Your task to perform on an android device: View the shopping cart on bestbuy. Search for "dell xps" on bestbuy, select the first entry, add it to the cart, then select checkout. Image 0: 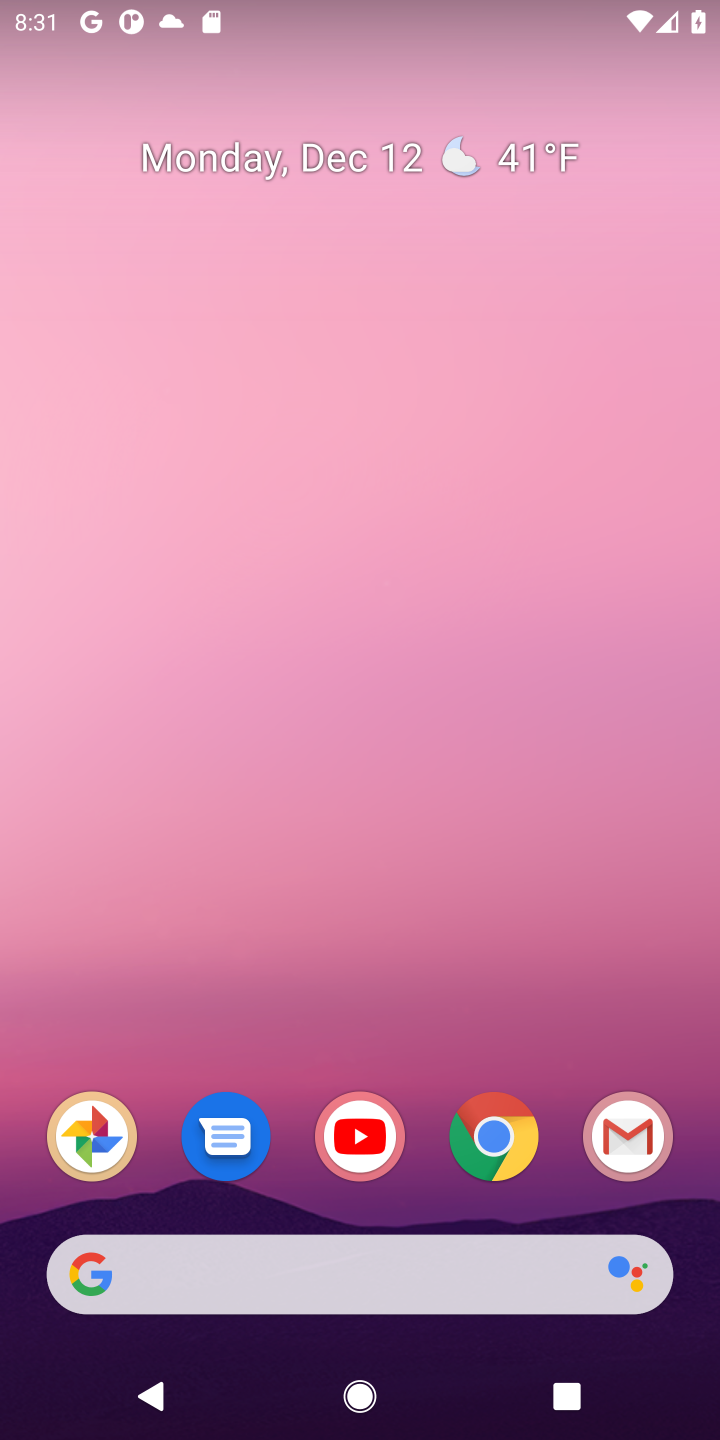
Step 0: click (489, 1142)
Your task to perform on an android device: View the shopping cart on bestbuy. Search for "dell xps" on bestbuy, select the first entry, add it to the cart, then select checkout. Image 1: 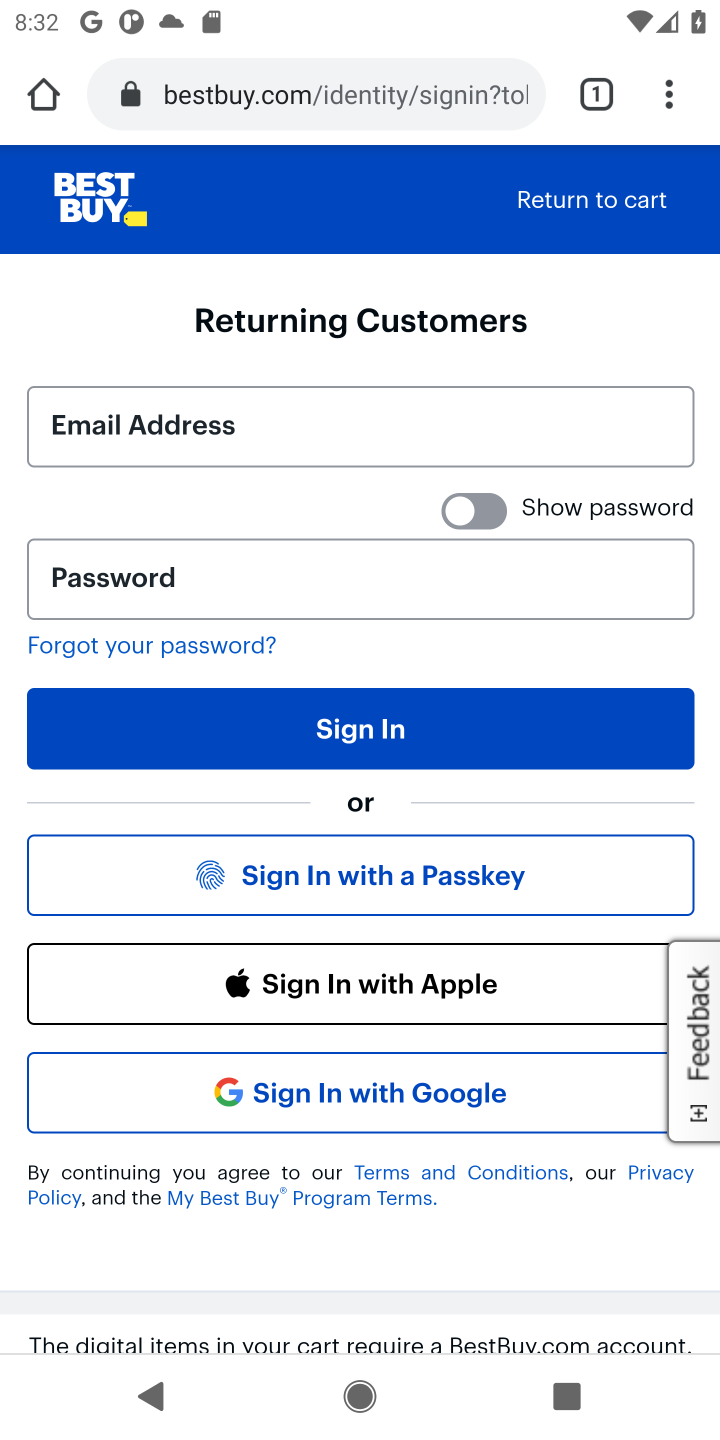
Step 1: press back button
Your task to perform on an android device: View the shopping cart on bestbuy. Search for "dell xps" on bestbuy, select the first entry, add it to the cart, then select checkout. Image 2: 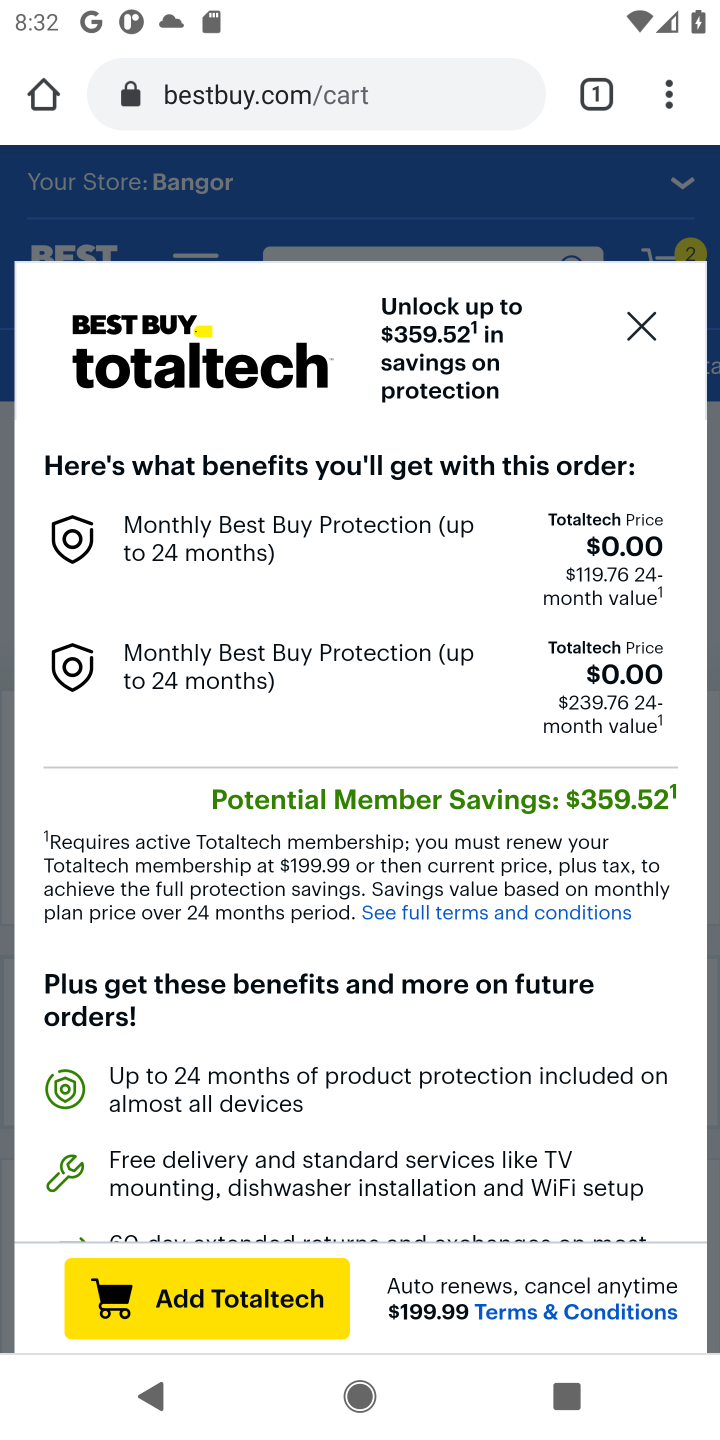
Step 2: click (641, 326)
Your task to perform on an android device: View the shopping cart on bestbuy. Search for "dell xps" on bestbuy, select the first entry, add it to the cart, then select checkout. Image 3: 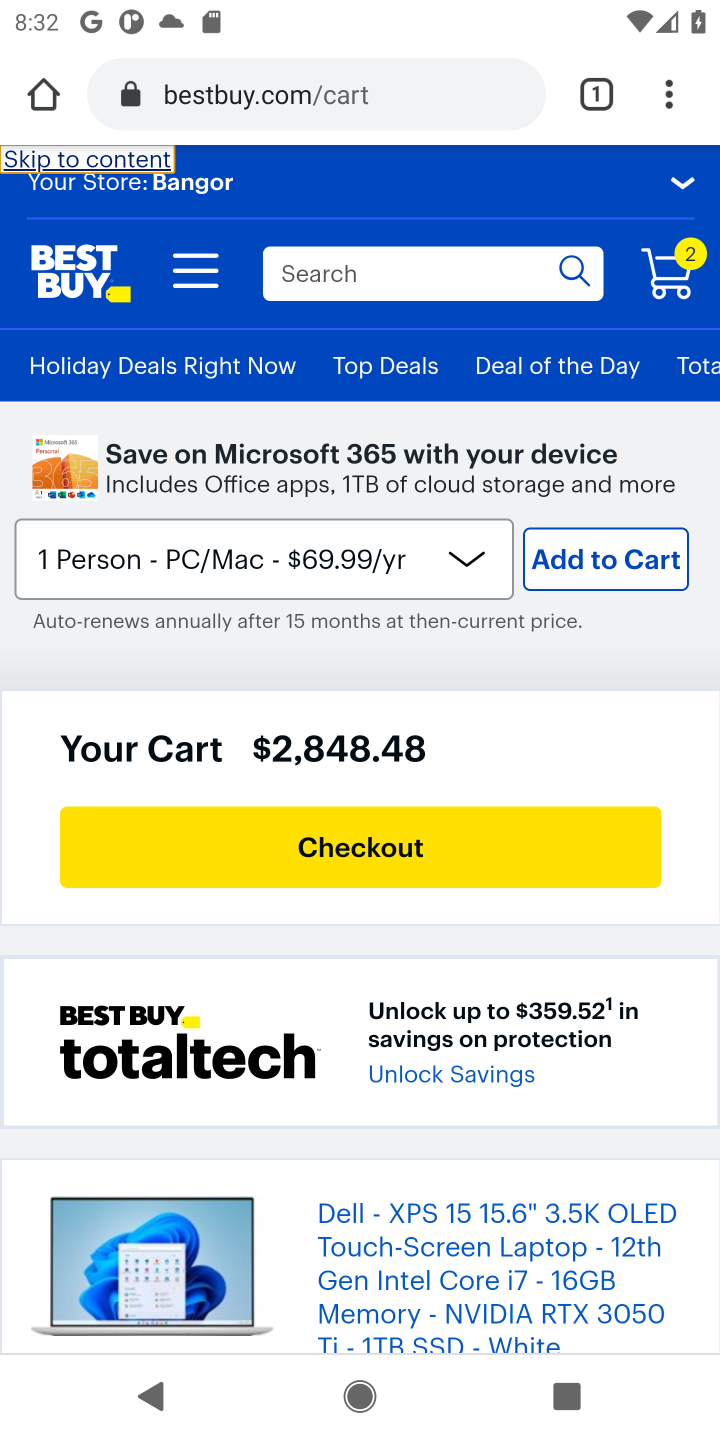
Step 3: click (672, 274)
Your task to perform on an android device: View the shopping cart on bestbuy. Search for "dell xps" on bestbuy, select the first entry, add it to the cart, then select checkout. Image 4: 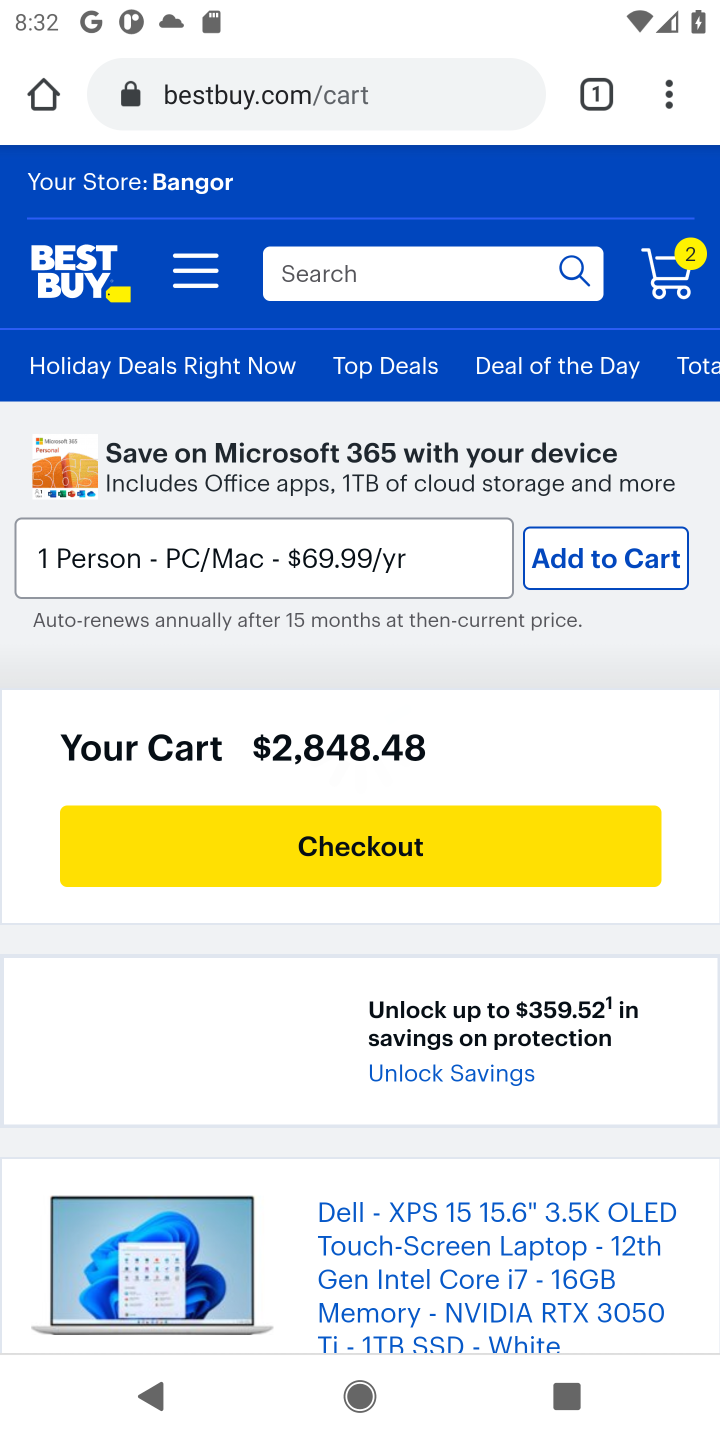
Step 4: drag from (422, 1014) to (422, 581)
Your task to perform on an android device: View the shopping cart on bestbuy. Search for "dell xps" on bestbuy, select the first entry, add it to the cart, then select checkout. Image 5: 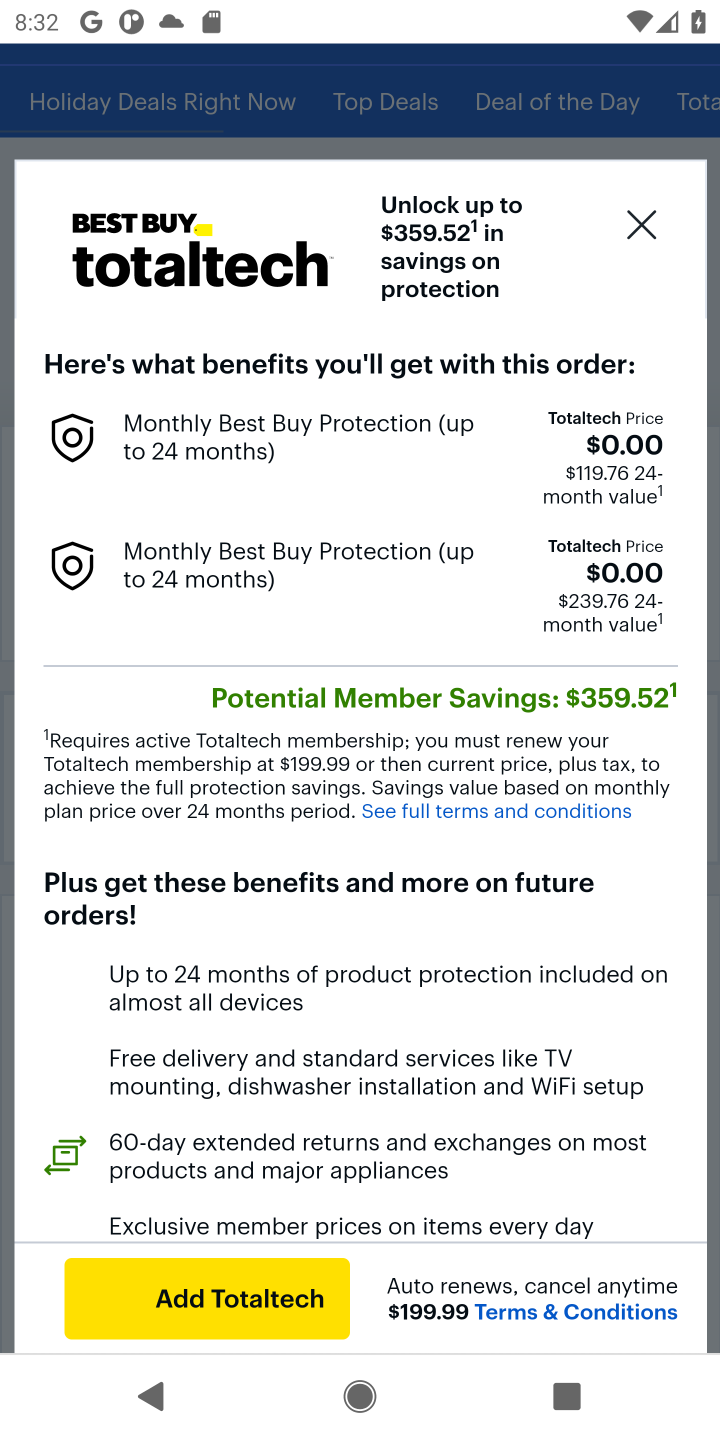
Step 5: drag from (557, 1018) to (534, 656)
Your task to perform on an android device: View the shopping cart on bestbuy. Search for "dell xps" on bestbuy, select the first entry, add it to the cart, then select checkout. Image 6: 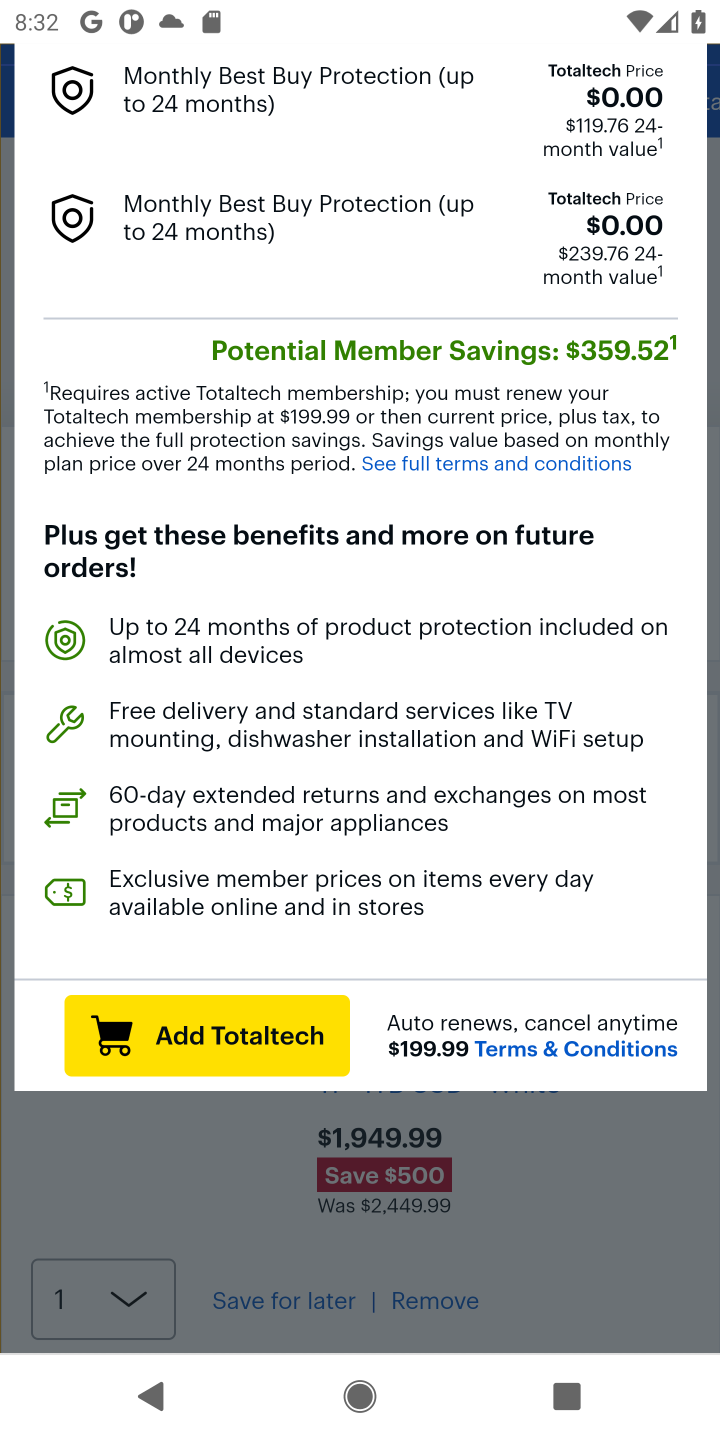
Step 6: drag from (561, 484) to (574, 955)
Your task to perform on an android device: View the shopping cart on bestbuy. Search for "dell xps" on bestbuy, select the first entry, add it to the cart, then select checkout. Image 7: 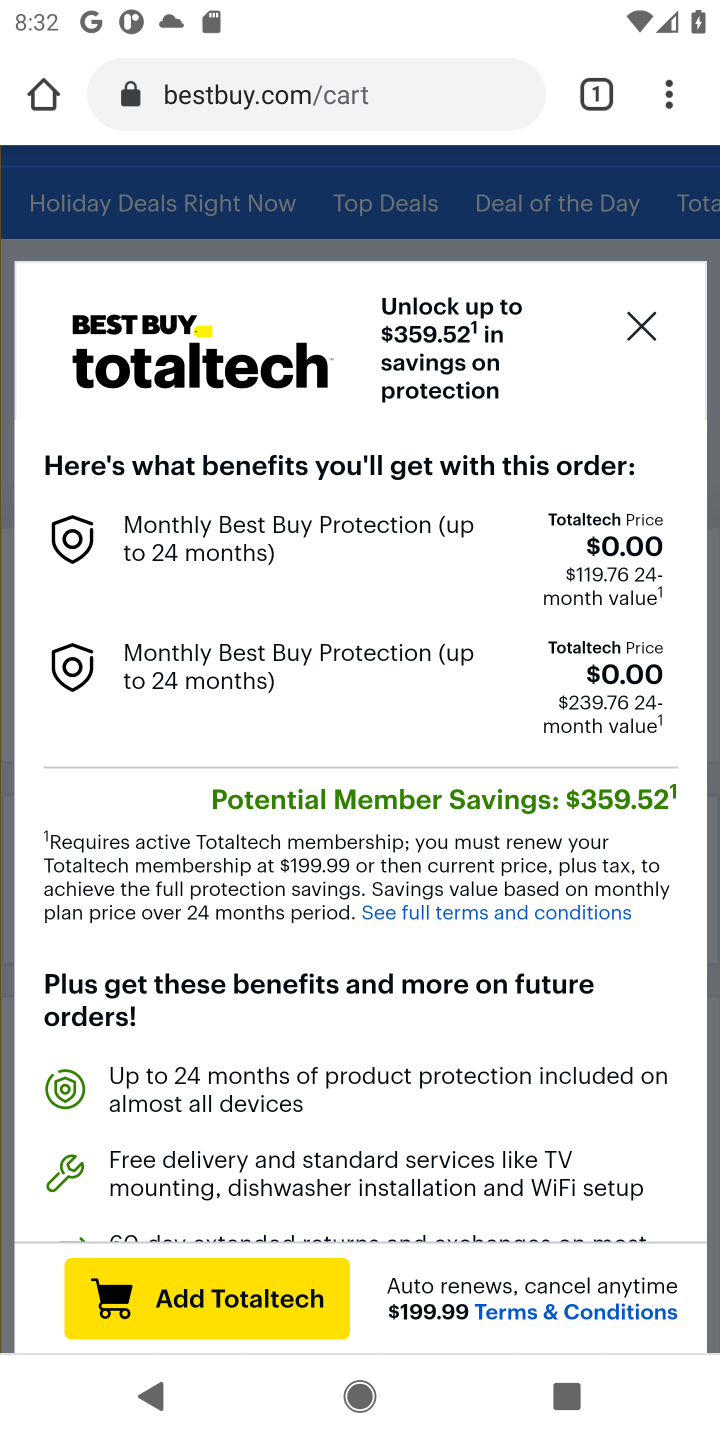
Step 7: click (642, 339)
Your task to perform on an android device: View the shopping cart on bestbuy. Search for "dell xps" on bestbuy, select the first entry, add it to the cart, then select checkout. Image 8: 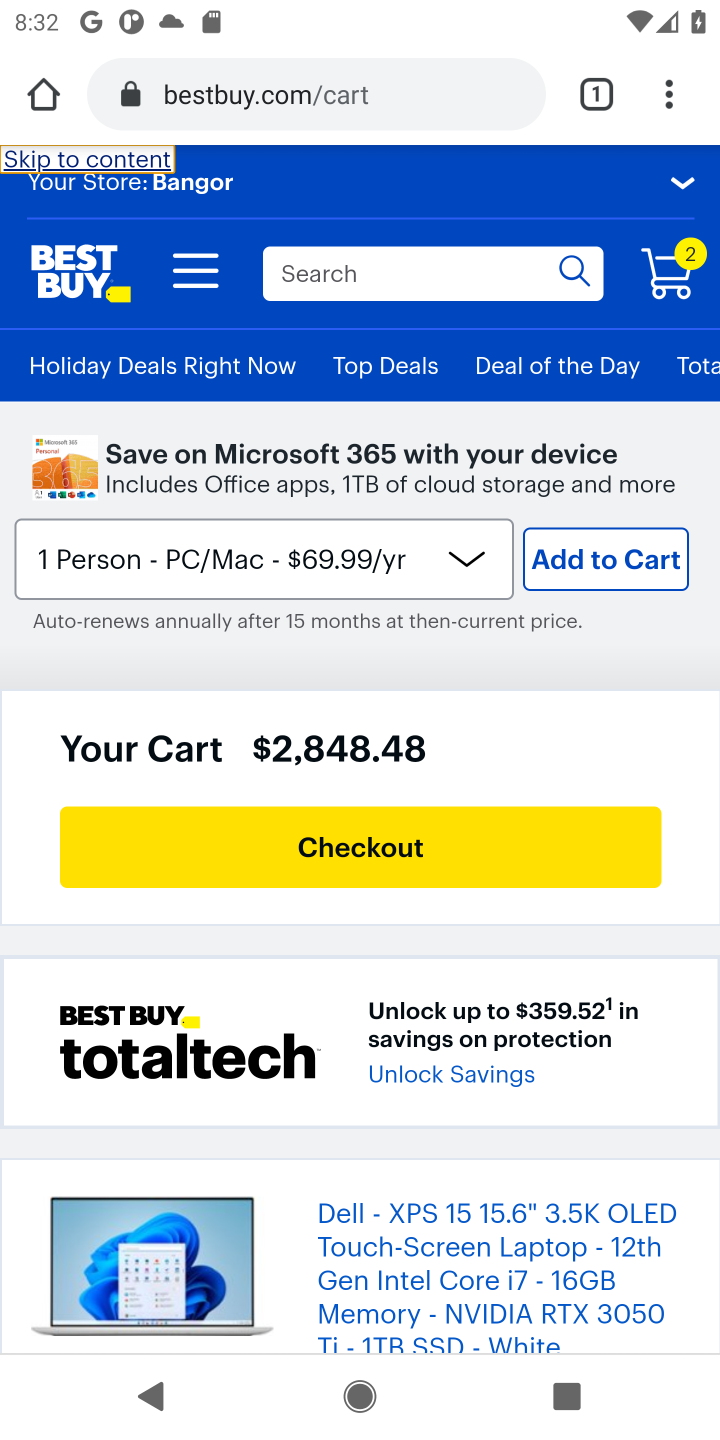
Step 8: click (372, 262)
Your task to perform on an android device: View the shopping cart on bestbuy. Search for "dell xps" on bestbuy, select the first entry, add it to the cart, then select checkout. Image 9: 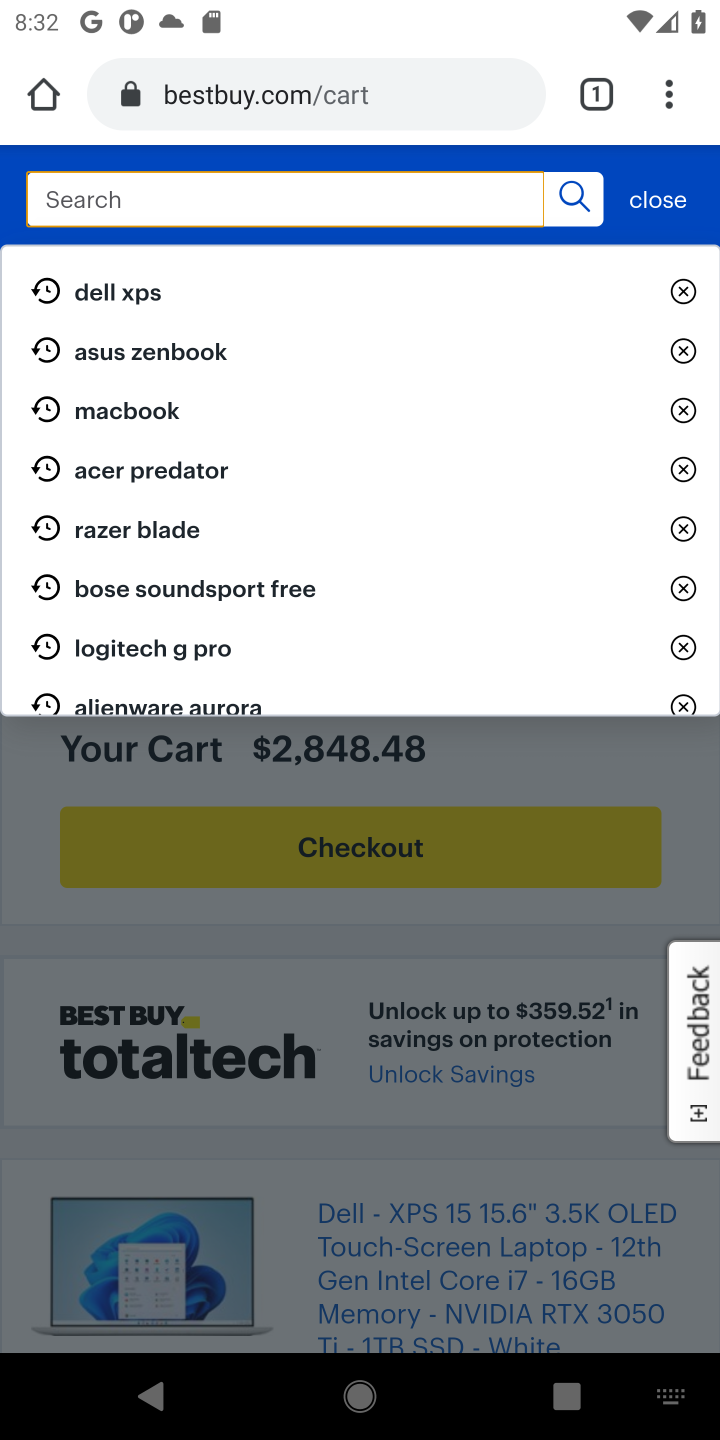
Step 9: type "dell xps"
Your task to perform on an android device: View the shopping cart on bestbuy. Search for "dell xps" on bestbuy, select the first entry, add it to the cart, then select checkout. Image 10: 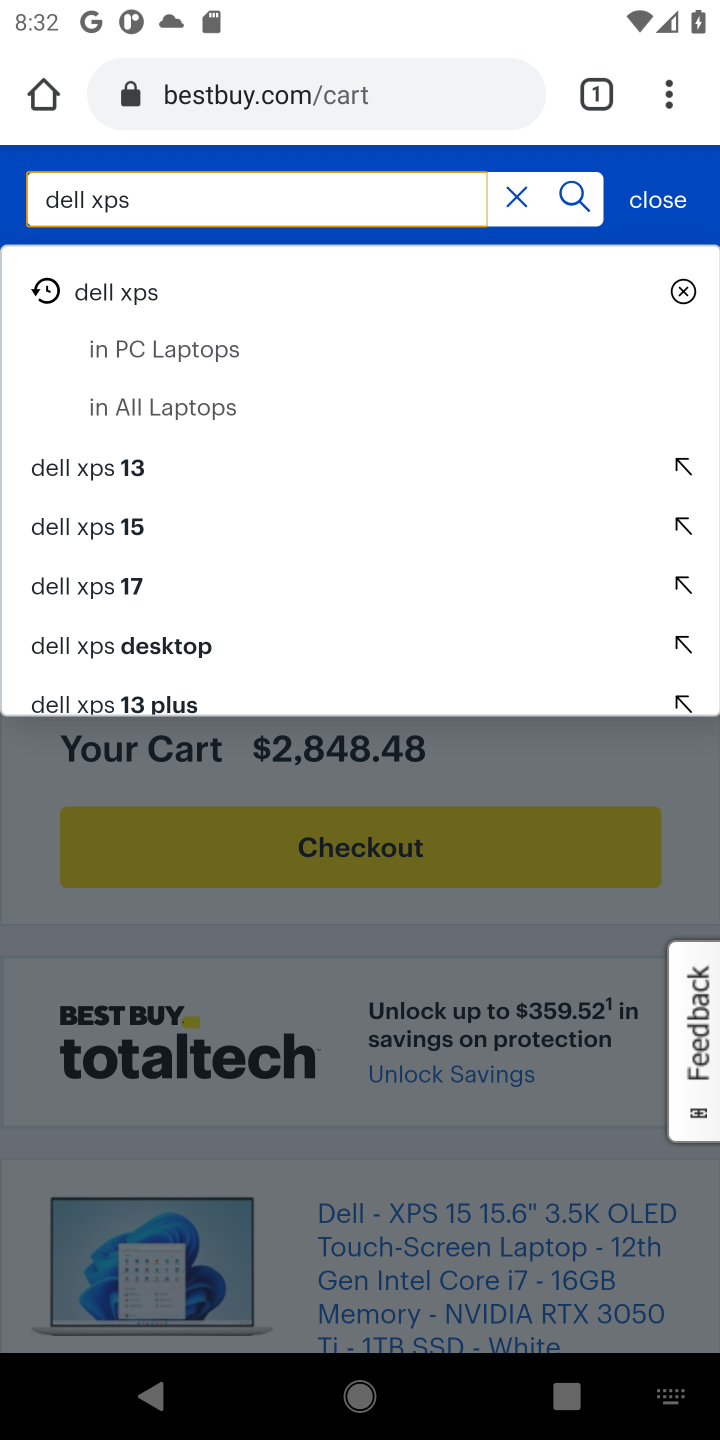
Step 10: click (133, 289)
Your task to perform on an android device: View the shopping cart on bestbuy. Search for "dell xps" on bestbuy, select the first entry, add it to the cart, then select checkout. Image 11: 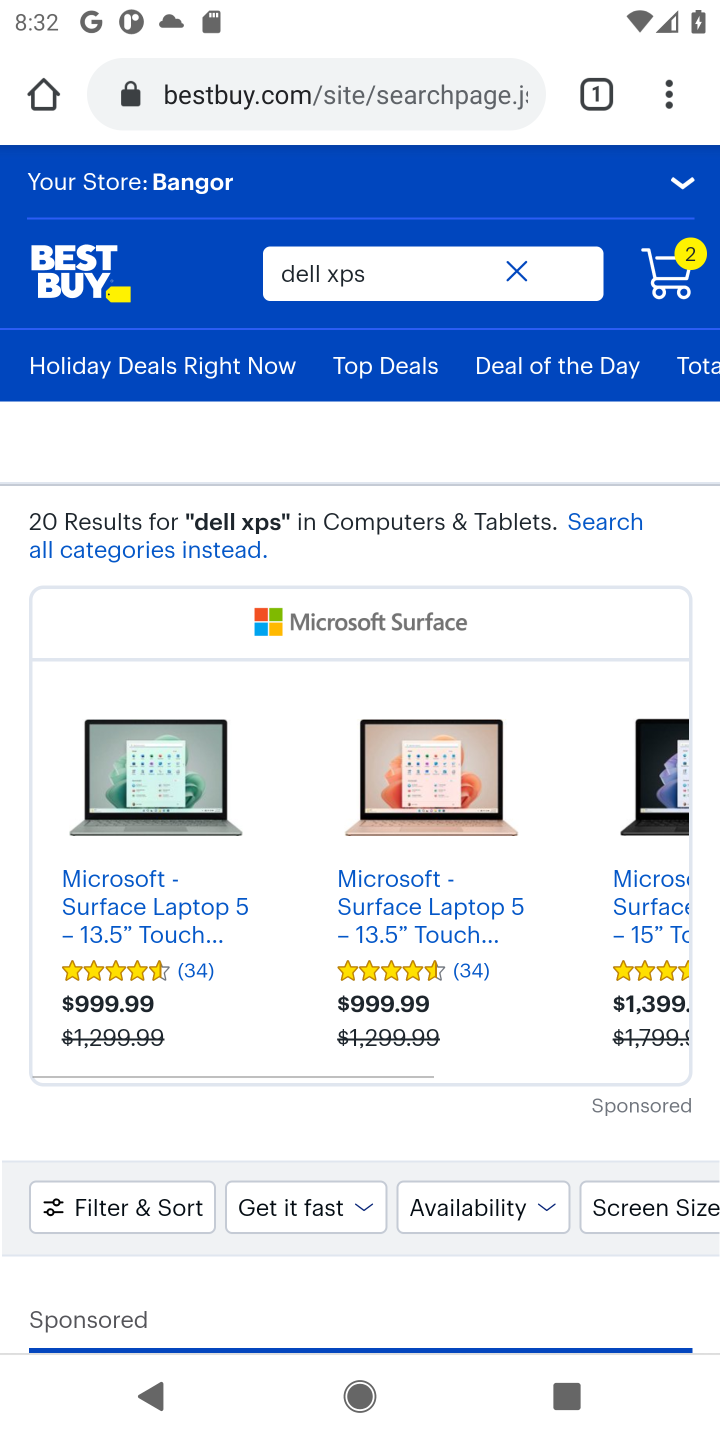
Step 11: drag from (314, 903) to (233, 342)
Your task to perform on an android device: View the shopping cart on bestbuy. Search for "dell xps" on bestbuy, select the first entry, add it to the cart, then select checkout. Image 12: 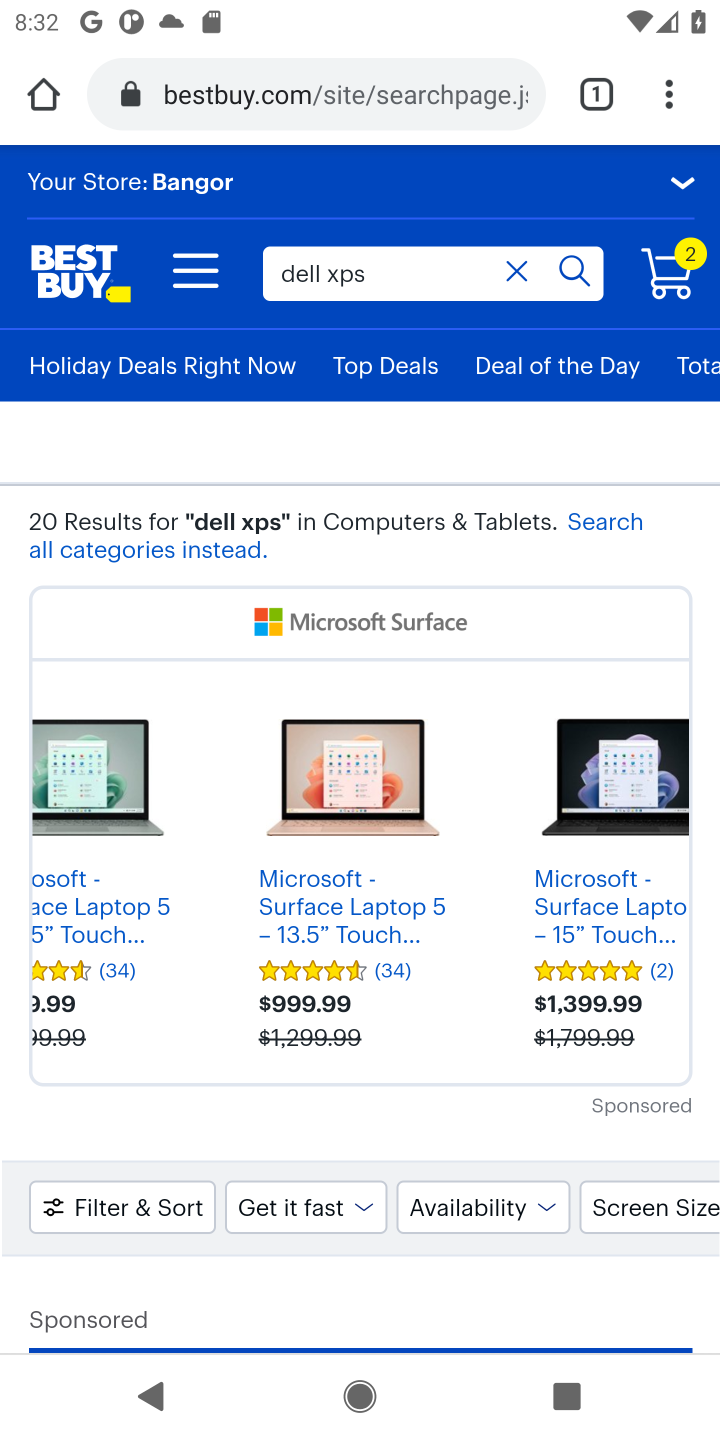
Step 12: drag from (443, 1163) to (438, 476)
Your task to perform on an android device: View the shopping cart on bestbuy. Search for "dell xps" on bestbuy, select the first entry, add it to the cart, then select checkout. Image 13: 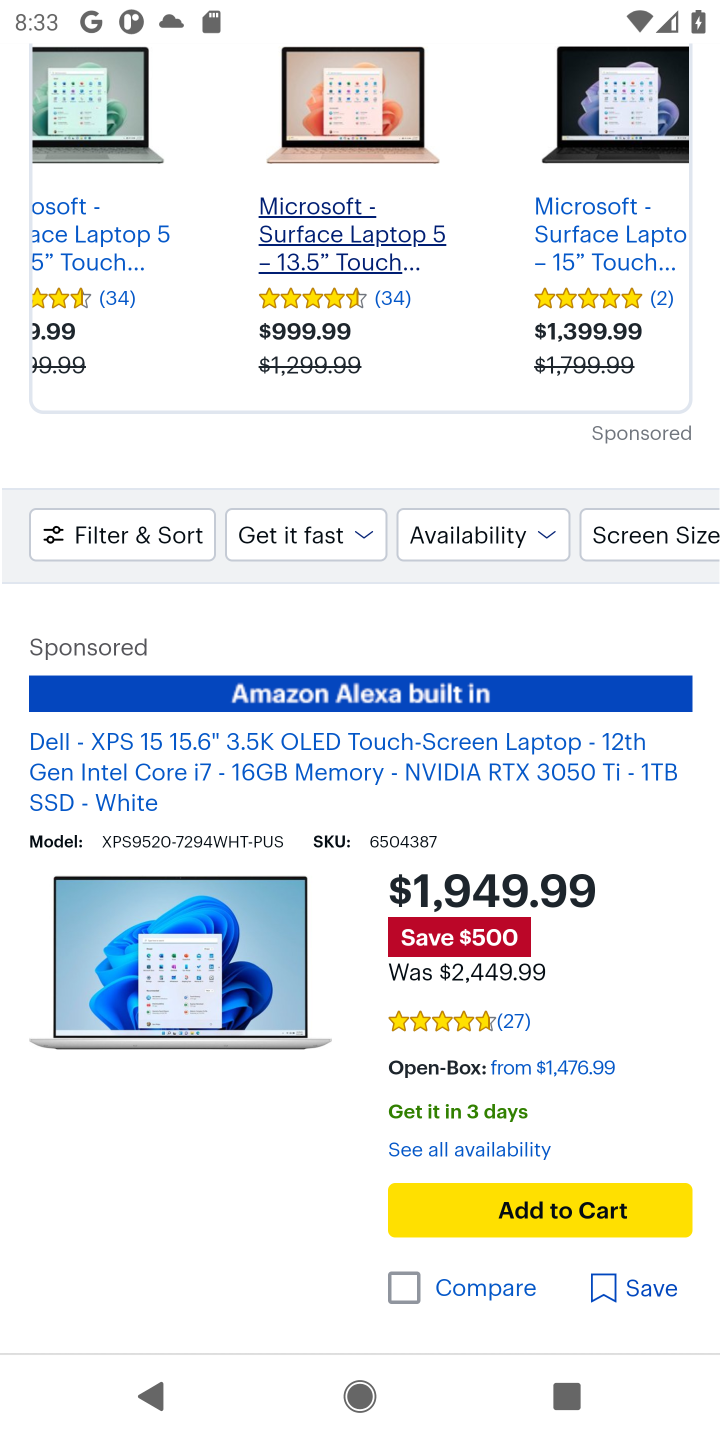
Step 13: click (502, 1221)
Your task to perform on an android device: View the shopping cart on bestbuy. Search for "dell xps" on bestbuy, select the first entry, add it to the cart, then select checkout. Image 14: 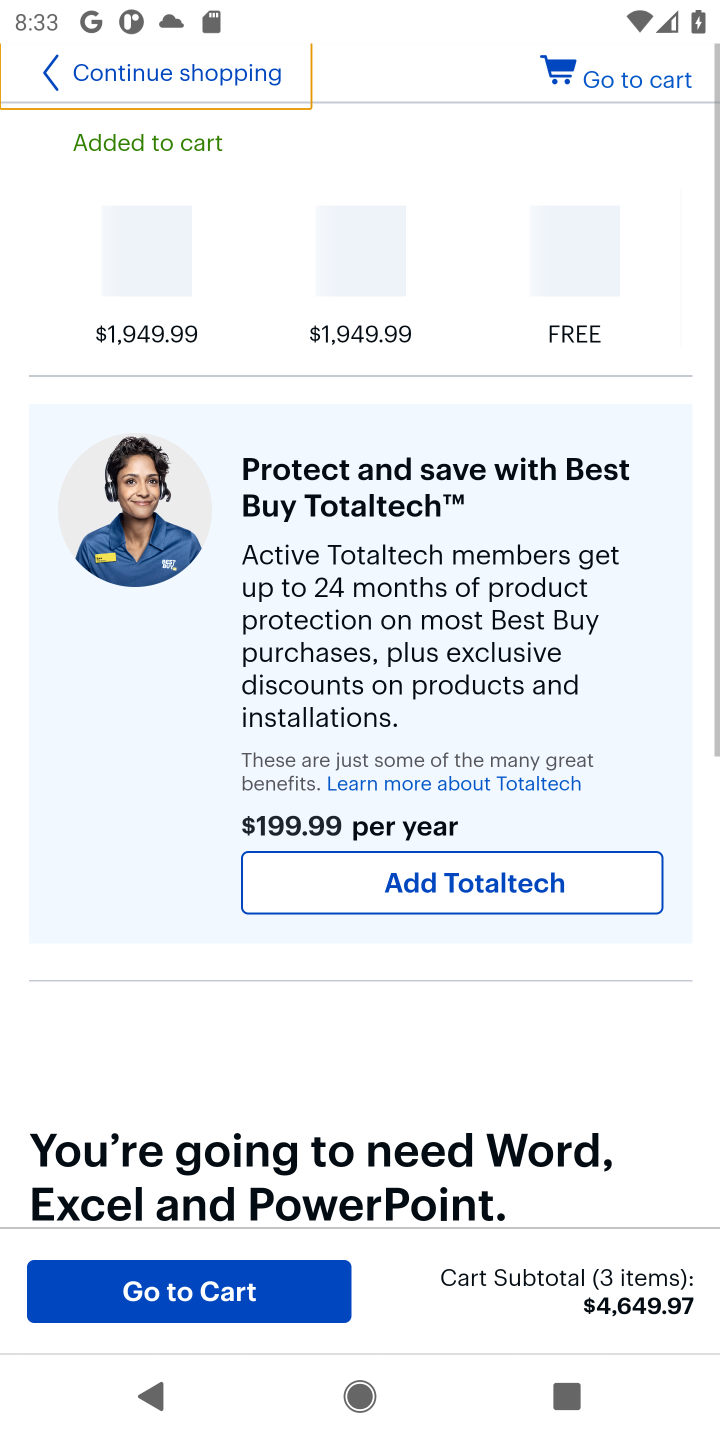
Step 14: click (643, 78)
Your task to perform on an android device: View the shopping cart on bestbuy. Search for "dell xps" on bestbuy, select the first entry, add it to the cart, then select checkout. Image 15: 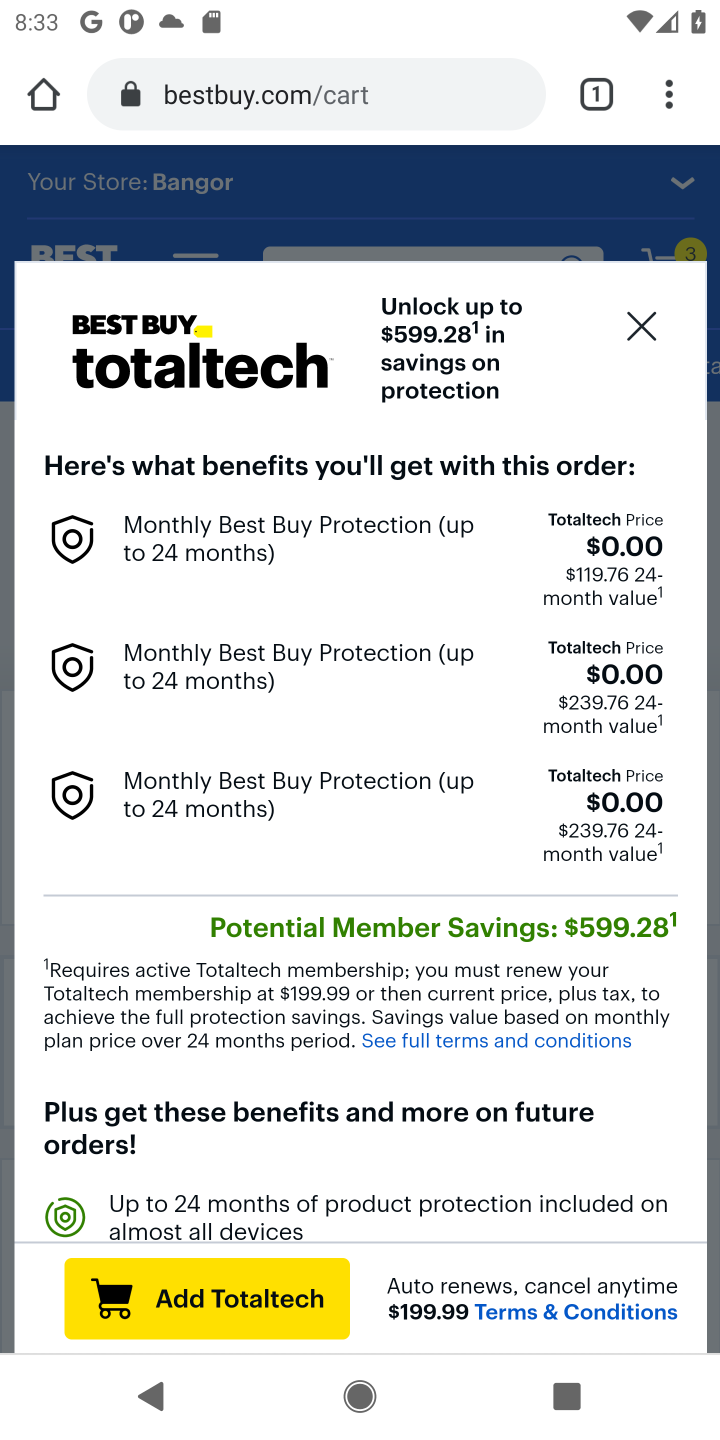
Step 15: click (638, 335)
Your task to perform on an android device: View the shopping cart on bestbuy. Search for "dell xps" on bestbuy, select the first entry, add it to the cart, then select checkout. Image 16: 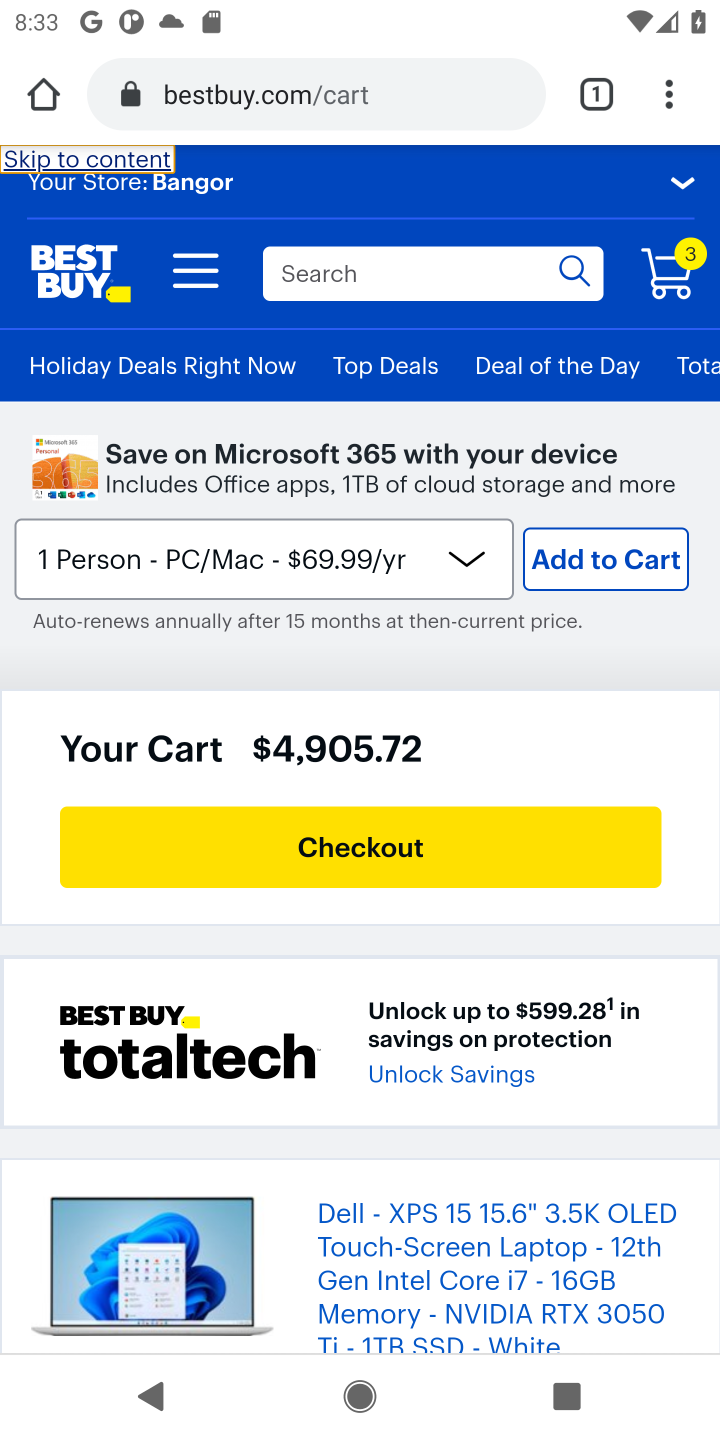
Step 16: click (418, 831)
Your task to perform on an android device: View the shopping cart on bestbuy. Search for "dell xps" on bestbuy, select the first entry, add it to the cart, then select checkout. Image 17: 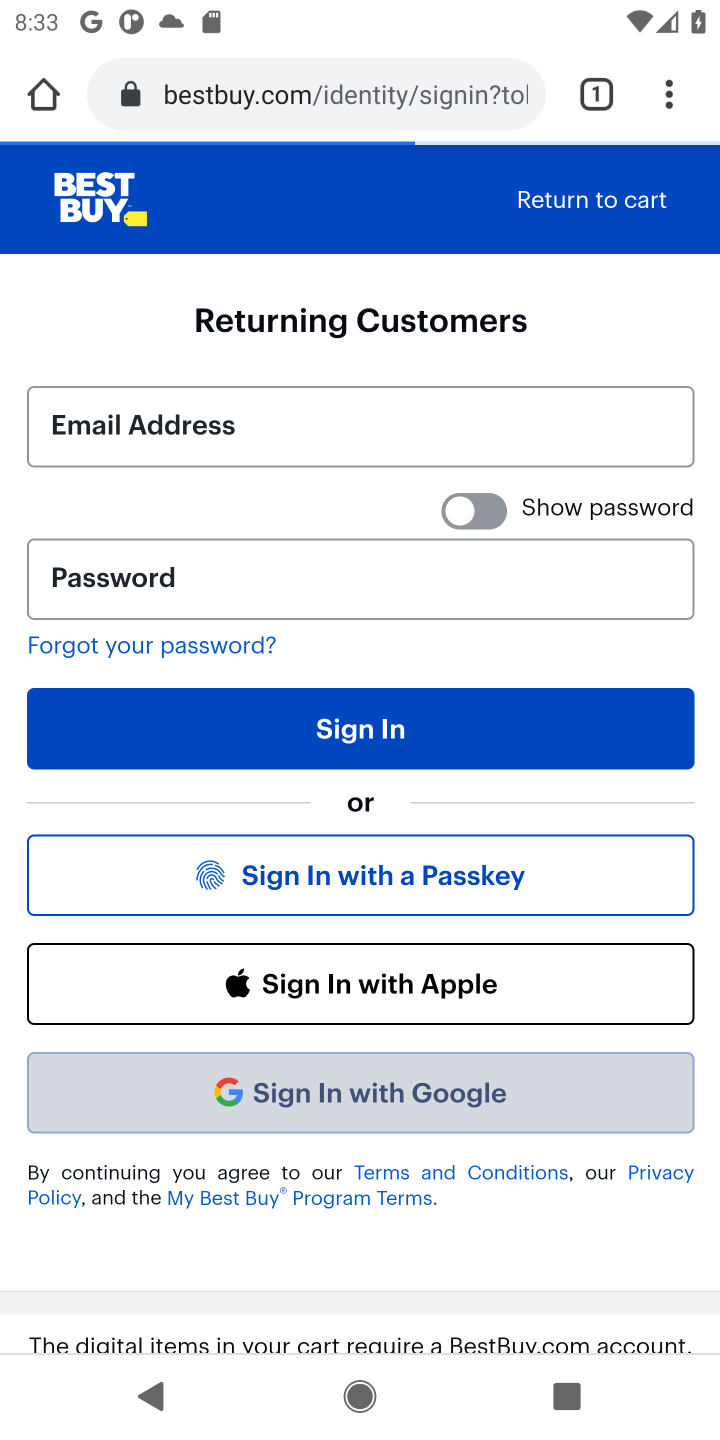
Step 17: task complete